Your task to perform on an android device: Open privacy settings Image 0: 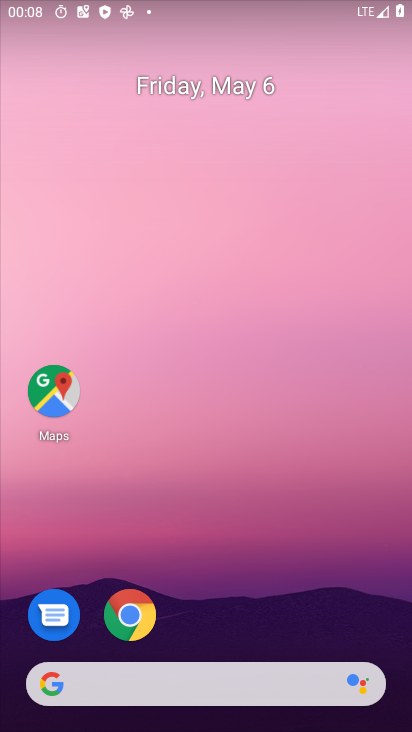
Step 0: click (134, 616)
Your task to perform on an android device: Open privacy settings Image 1: 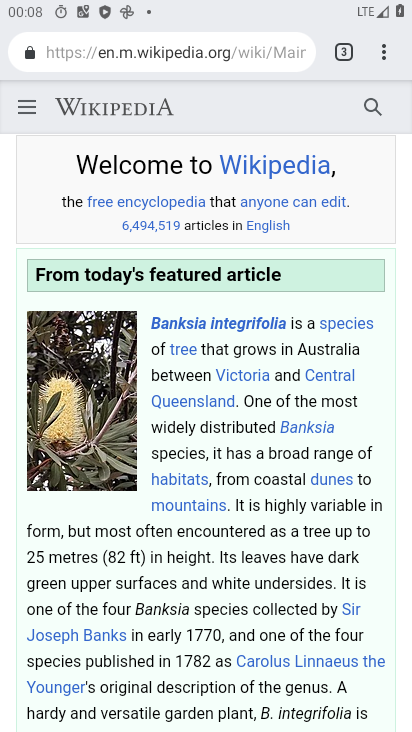
Step 1: click (379, 62)
Your task to perform on an android device: Open privacy settings Image 2: 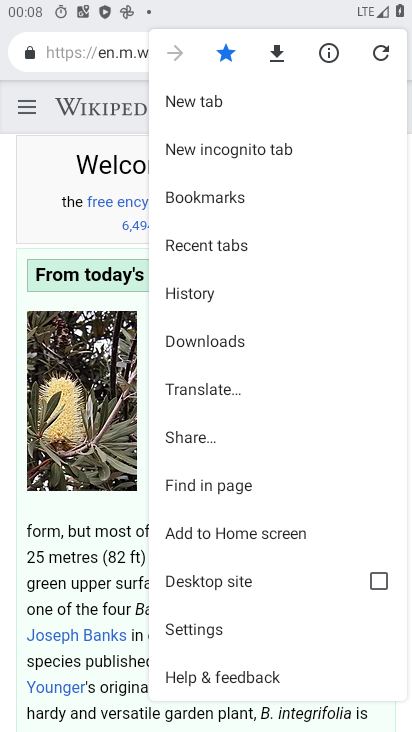
Step 2: click (219, 641)
Your task to perform on an android device: Open privacy settings Image 3: 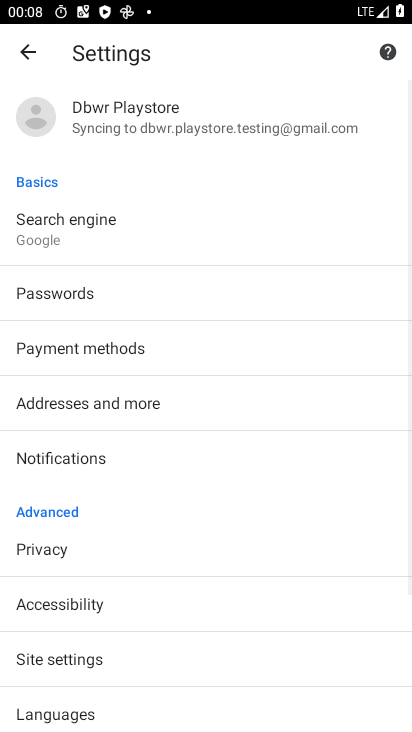
Step 3: click (77, 553)
Your task to perform on an android device: Open privacy settings Image 4: 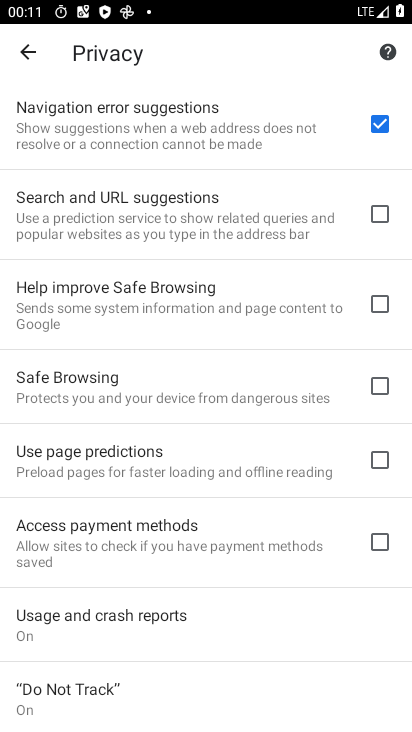
Step 4: task complete